Your task to perform on an android device: add a contact Image 0: 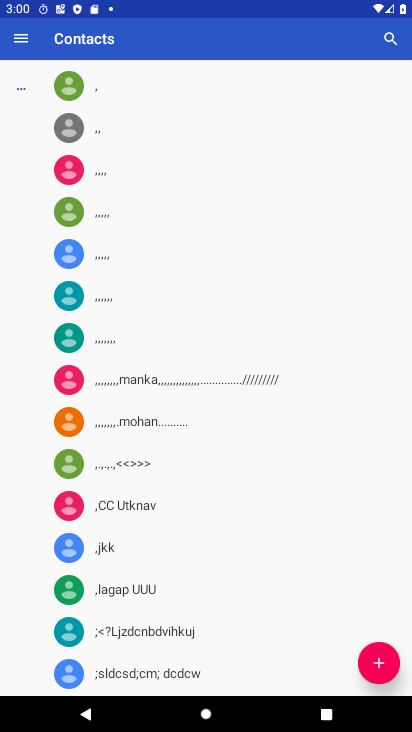
Step 0: press home button
Your task to perform on an android device: add a contact Image 1: 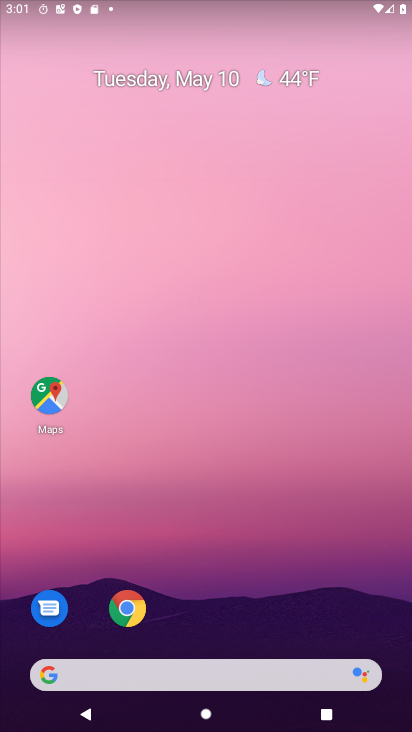
Step 1: drag from (369, 619) to (388, 2)
Your task to perform on an android device: add a contact Image 2: 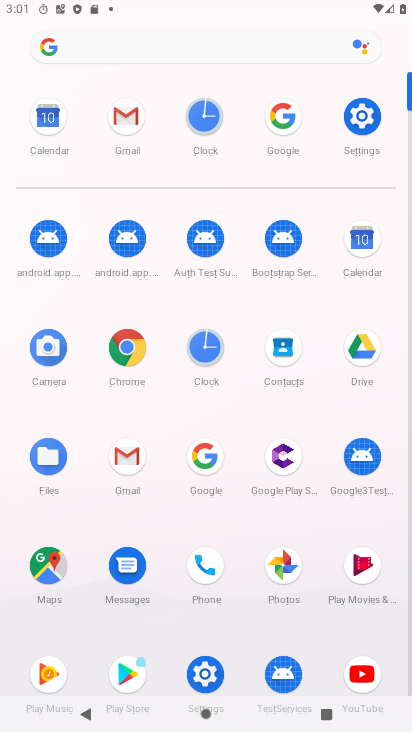
Step 2: click (282, 343)
Your task to perform on an android device: add a contact Image 3: 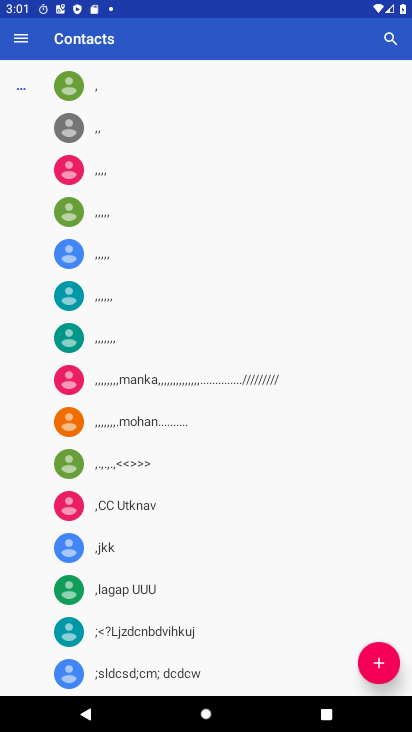
Step 3: click (376, 662)
Your task to perform on an android device: add a contact Image 4: 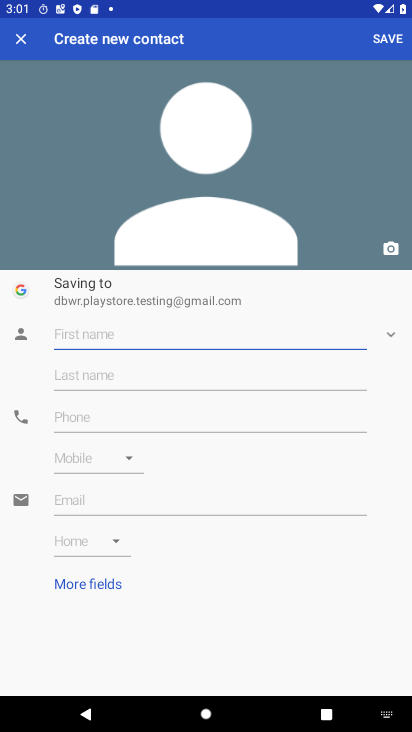
Step 4: click (82, 337)
Your task to perform on an android device: add a contact Image 5: 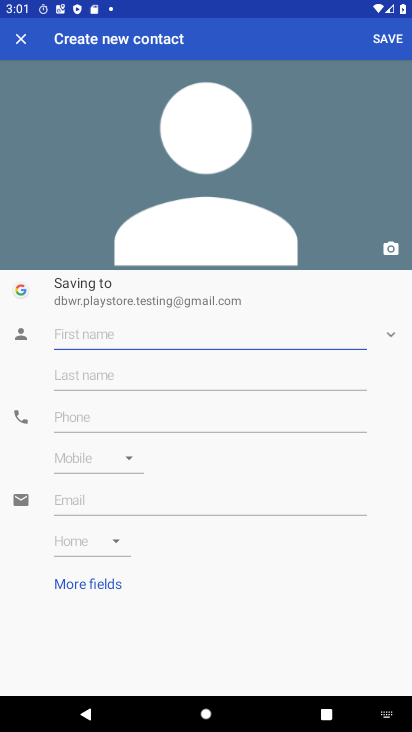
Step 5: type "kiwi"
Your task to perform on an android device: add a contact Image 6: 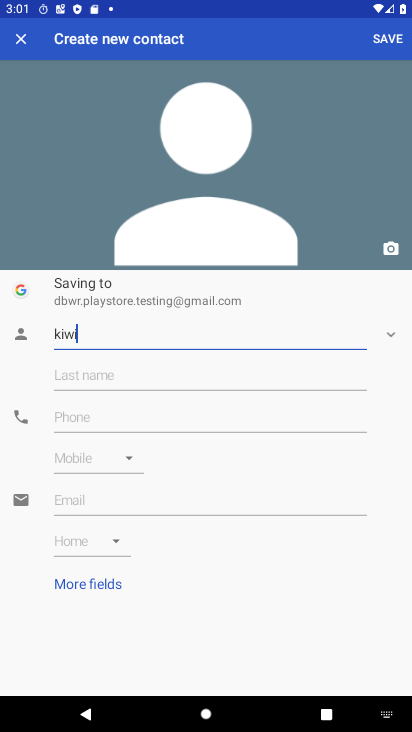
Step 6: click (143, 415)
Your task to perform on an android device: add a contact Image 7: 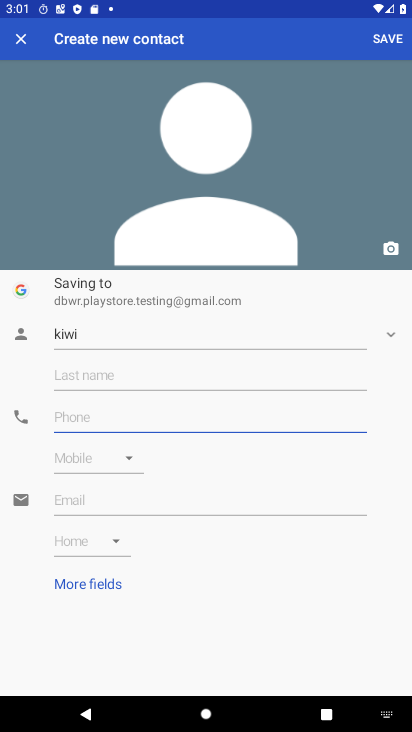
Step 7: type "98765544433"
Your task to perform on an android device: add a contact Image 8: 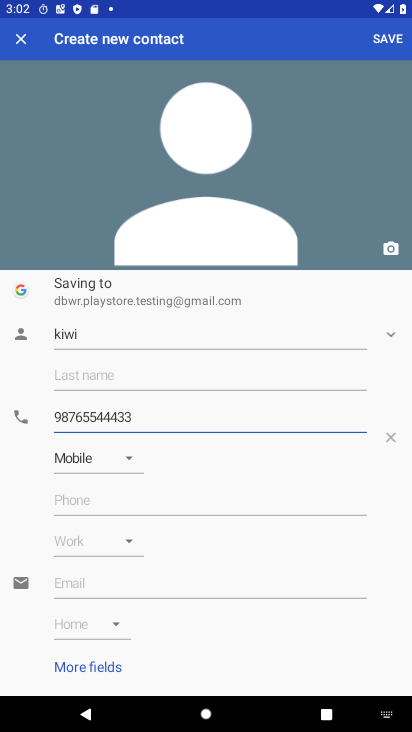
Step 8: click (384, 42)
Your task to perform on an android device: add a contact Image 9: 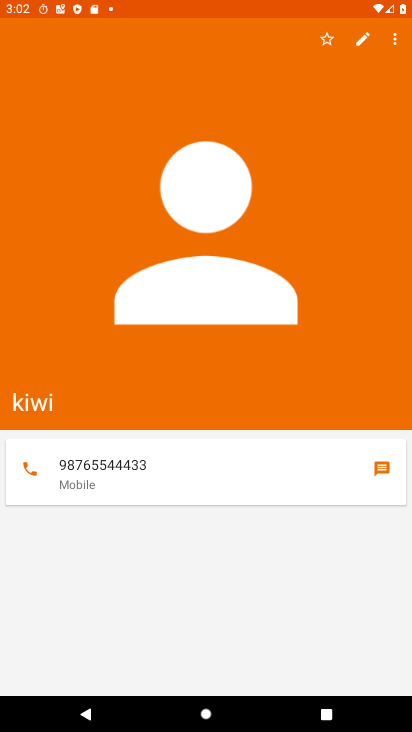
Step 9: task complete